Your task to perform on an android device: Open privacy settings Image 0: 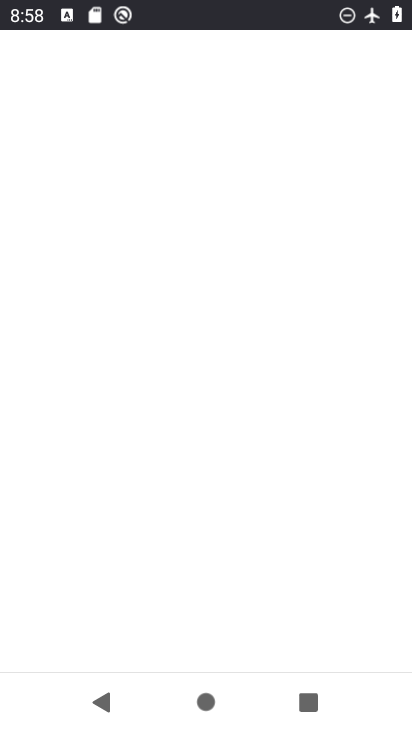
Step 0: drag from (223, 587) to (174, 223)
Your task to perform on an android device: Open privacy settings Image 1: 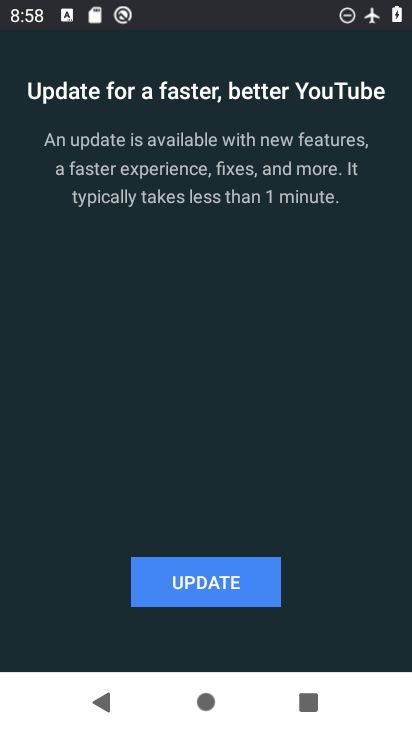
Step 1: press home button
Your task to perform on an android device: Open privacy settings Image 2: 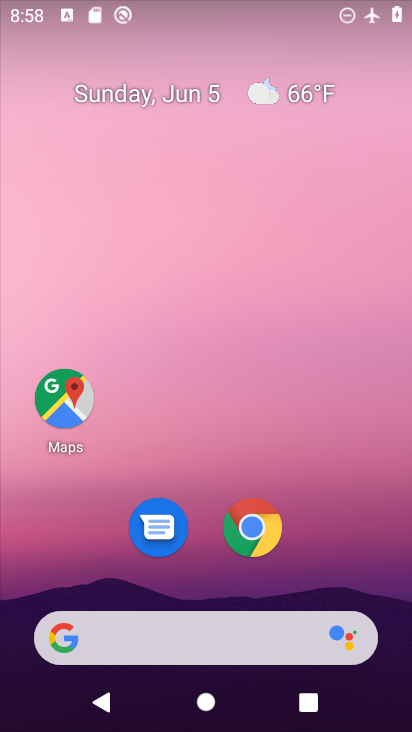
Step 2: drag from (193, 579) to (215, 24)
Your task to perform on an android device: Open privacy settings Image 3: 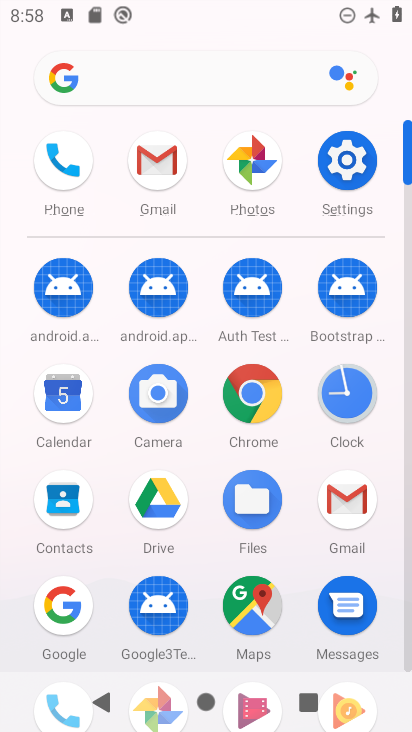
Step 3: click (350, 171)
Your task to perform on an android device: Open privacy settings Image 4: 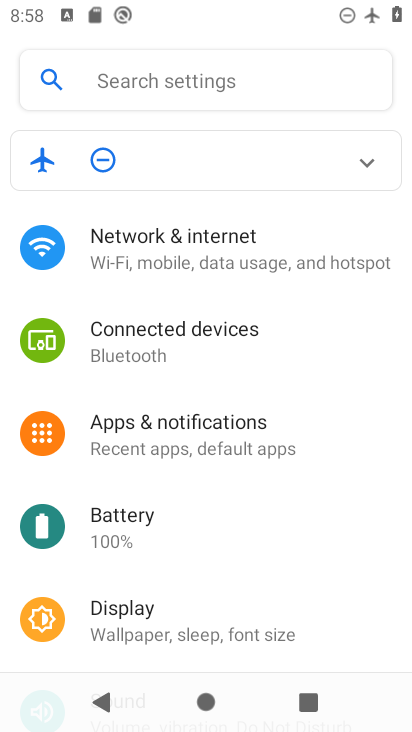
Step 4: drag from (149, 629) to (304, 130)
Your task to perform on an android device: Open privacy settings Image 5: 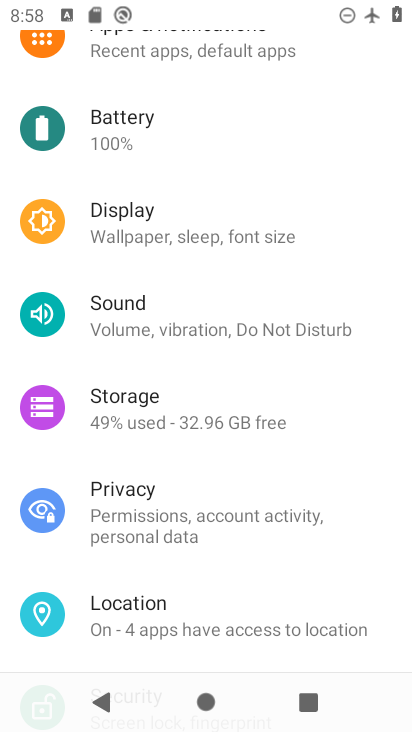
Step 5: click (181, 483)
Your task to perform on an android device: Open privacy settings Image 6: 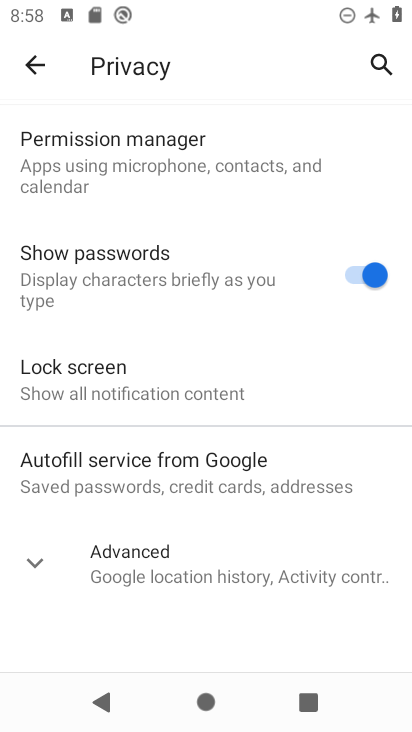
Step 6: task complete